Your task to perform on an android device: Open settings on Google Maps Image 0: 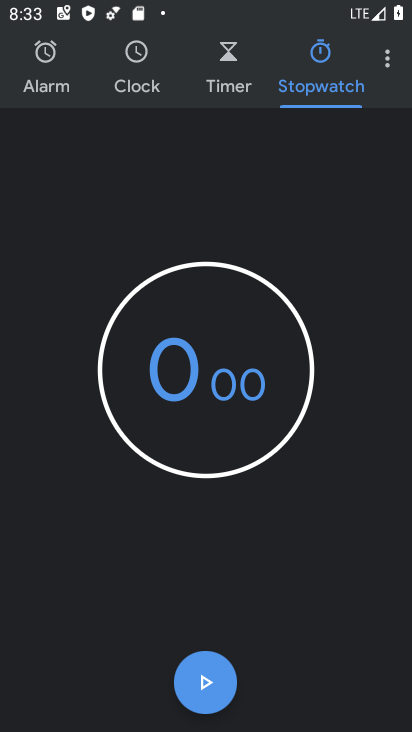
Step 0: press home button
Your task to perform on an android device: Open settings on Google Maps Image 1: 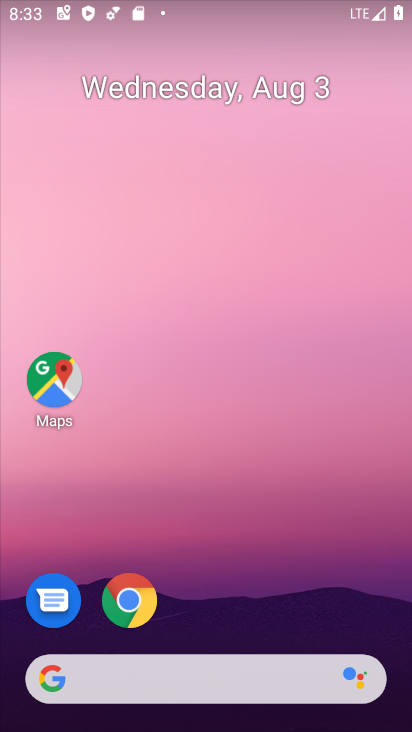
Step 1: click (51, 397)
Your task to perform on an android device: Open settings on Google Maps Image 2: 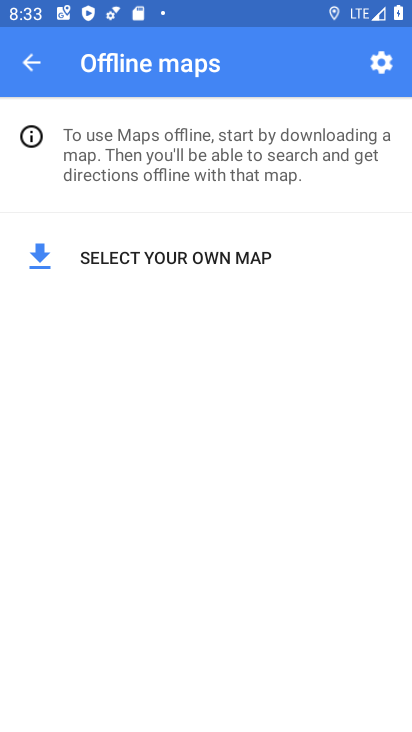
Step 2: click (22, 79)
Your task to perform on an android device: Open settings on Google Maps Image 3: 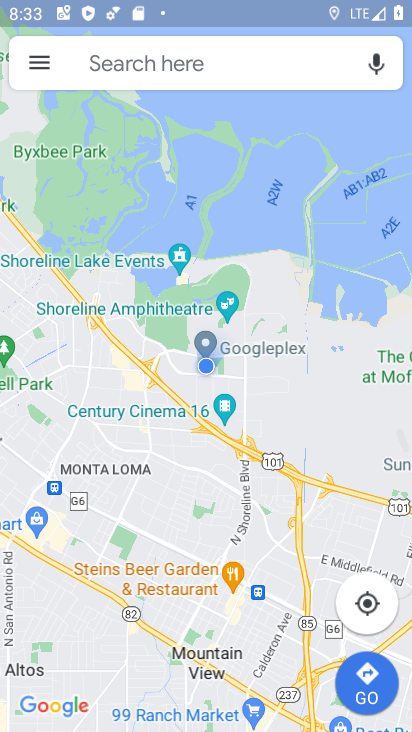
Step 3: click (42, 67)
Your task to perform on an android device: Open settings on Google Maps Image 4: 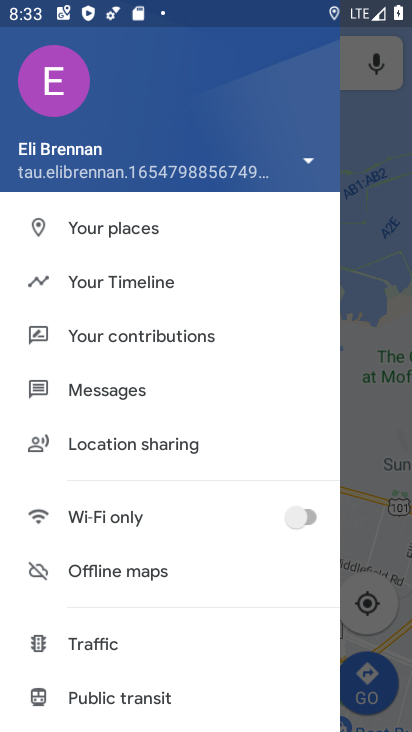
Step 4: drag from (109, 638) to (99, 116)
Your task to perform on an android device: Open settings on Google Maps Image 5: 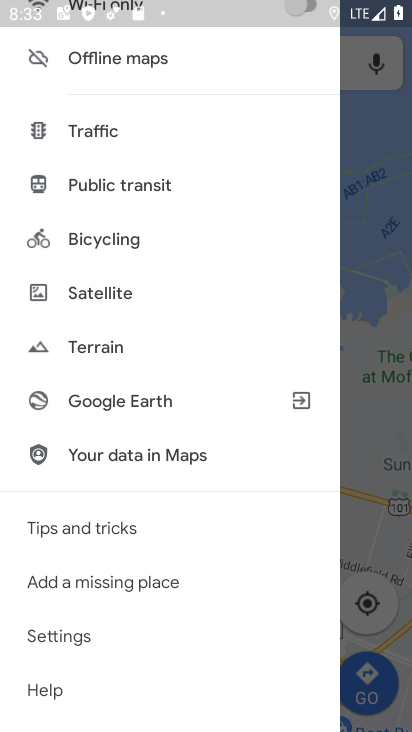
Step 5: click (80, 627)
Your task to perform on an android device: Open settings on Google Maps Image 6: 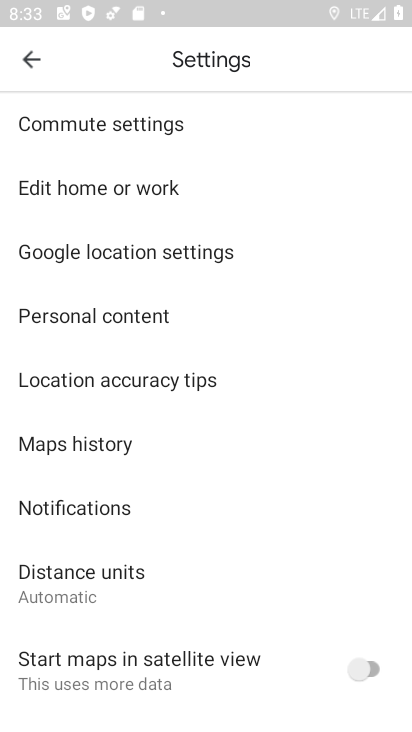
Step 6: task complete